Your task to perform on an android device: turn on wifi Image 0: 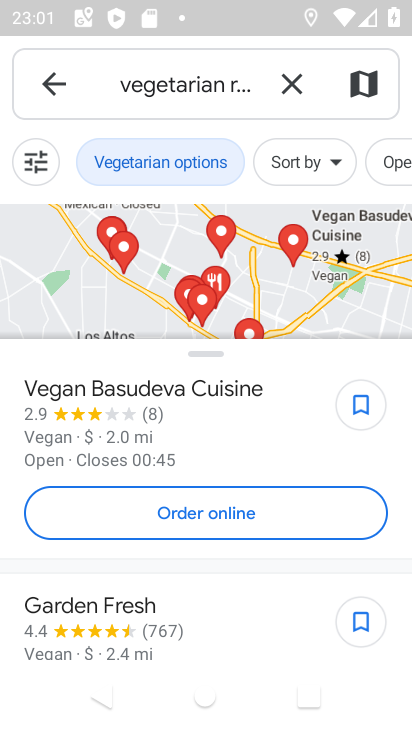
Step 0: press home button
Your task to perform on an android device: turn on wifi Image 1: 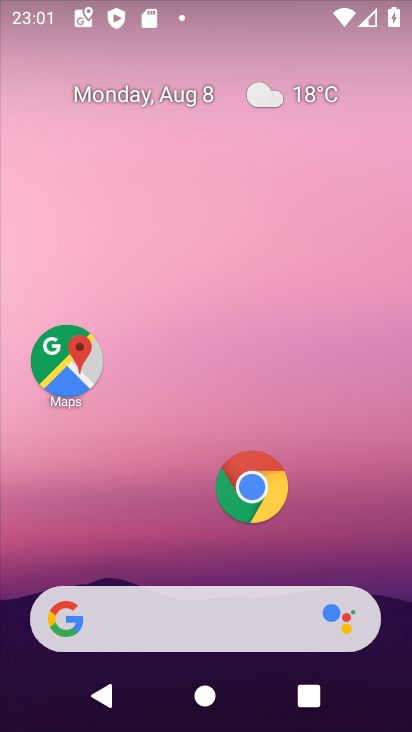
Step 1: drag from (182, 564) to (217, 147)
Your task to perform on an android device: turn on wifi Image 2: 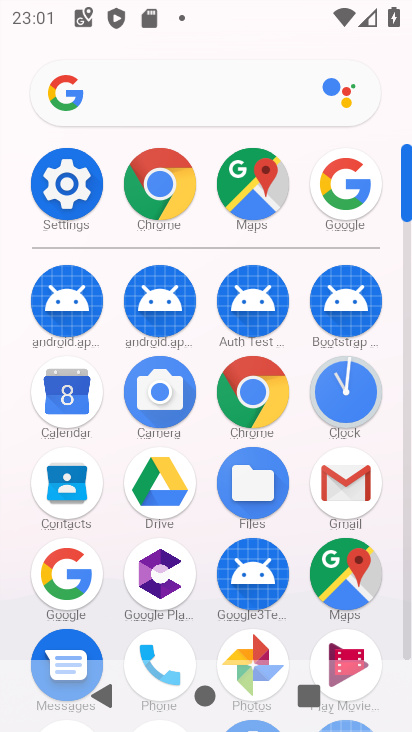
Step 2: click (67, 177)
Your task to perform on an android device: turn on wifi Image 3: 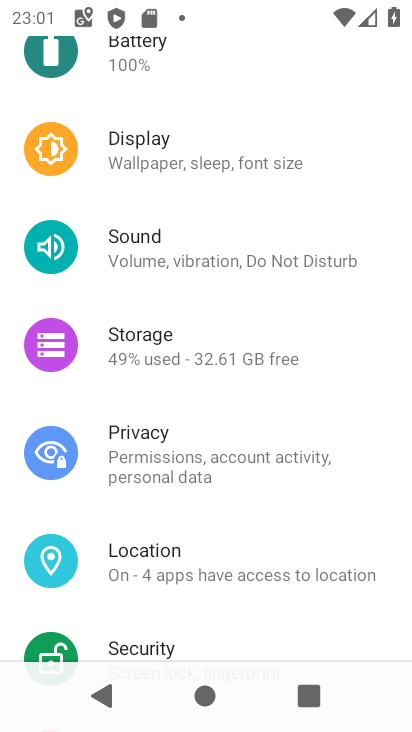
Step 3: drag from (166, 162) to (174, 429)
Your task to perform on an android device: turn on wifi Image 4: 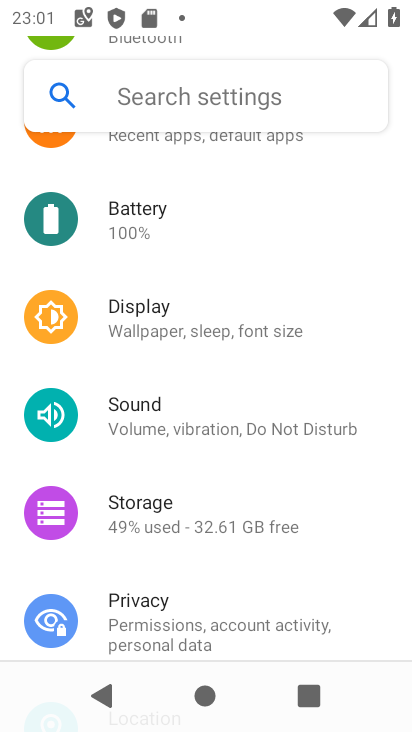
Step 4: drag from (154, 195) to (145, 437)
Your task to perform on an android device: turn on wifi Image 5: 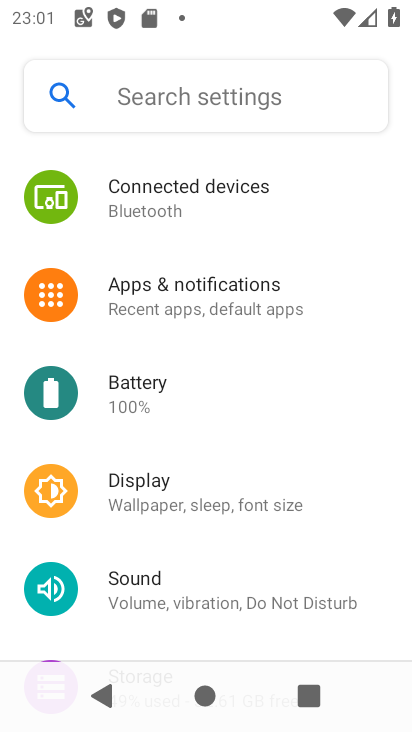
Step 5: drag from (181, 191) to (179, 520)
Your task to perform on an android device: turn on wifi Image 6: 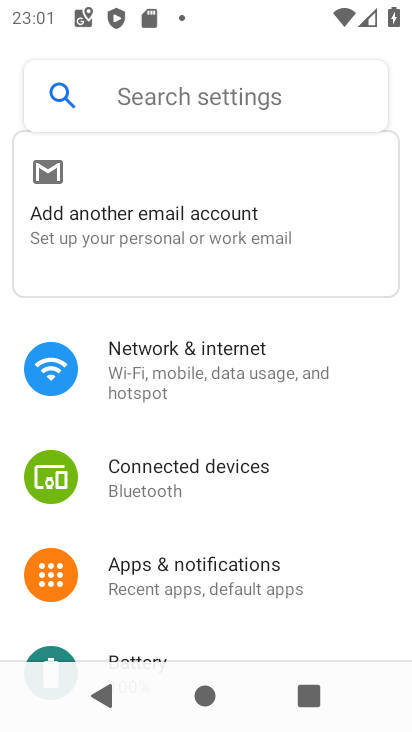
Step 6: click (148, 355)
Your task to perform on an android device: turn on wifi Image 7: 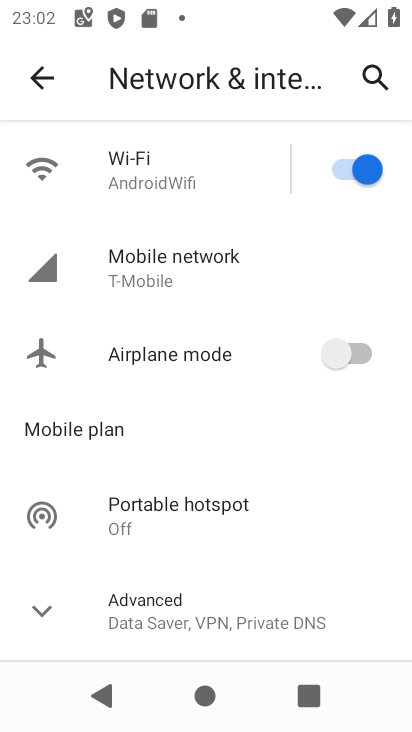
Step 7: task complete